Your task to perform on an android device: find which apps use the phone's location Image 0: 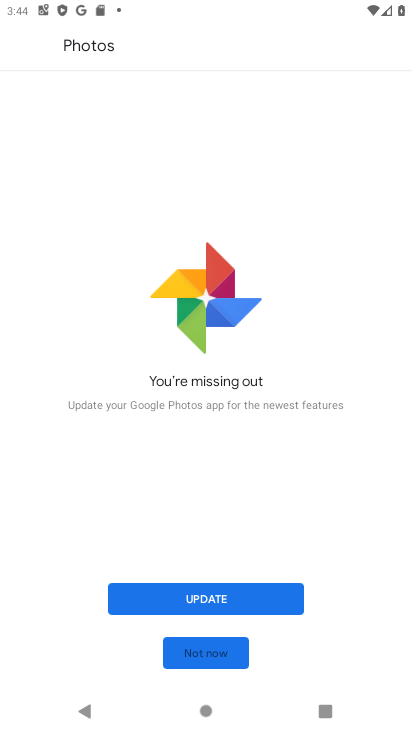
Step 0: press home button
Your task to perform on an android device: find which apps use the phone's location Image 1: 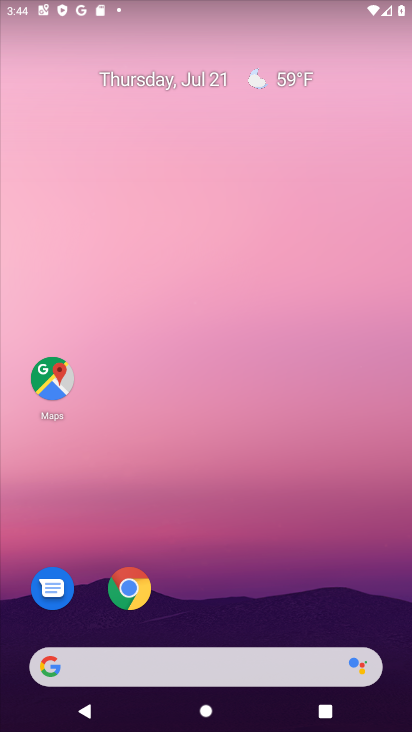
Step 1: drag from (223, 725) to (224, 121)
Your task to perform on an android device: find which apps use the phone's location Image 2: 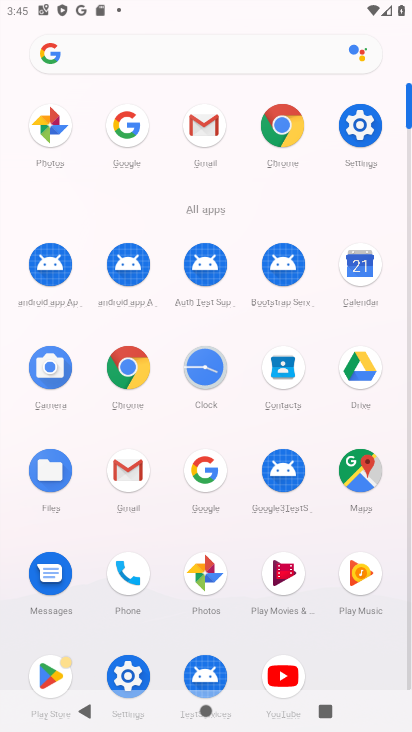
Step 2: click (361, 127)
Your task to perform on an android device: find which apps use the phone's location Image 3: 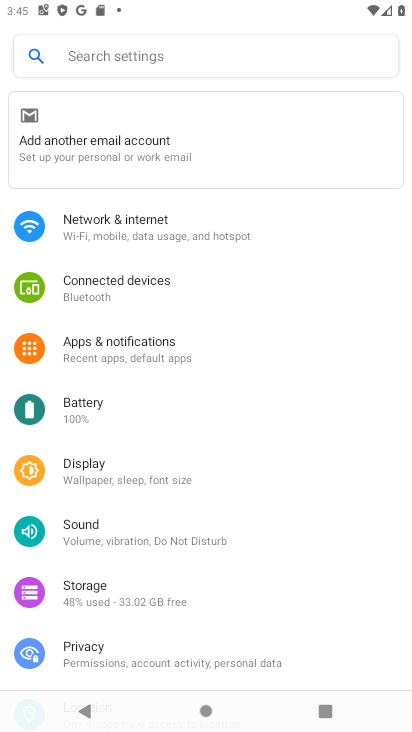
Step 3: drag from (102, 635) to (102, 307)
Your task to perform on an android device: find which apps use the phone's location Image 4: 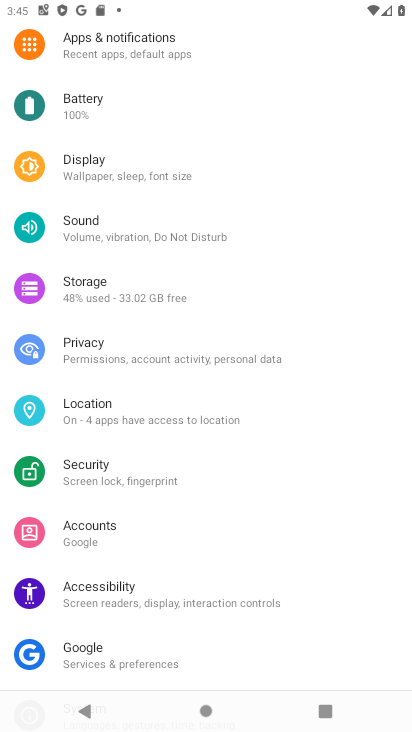
Step 4: click (88, 406)
Your task to perform on an android device: find which apps use the phone's location Image 5: 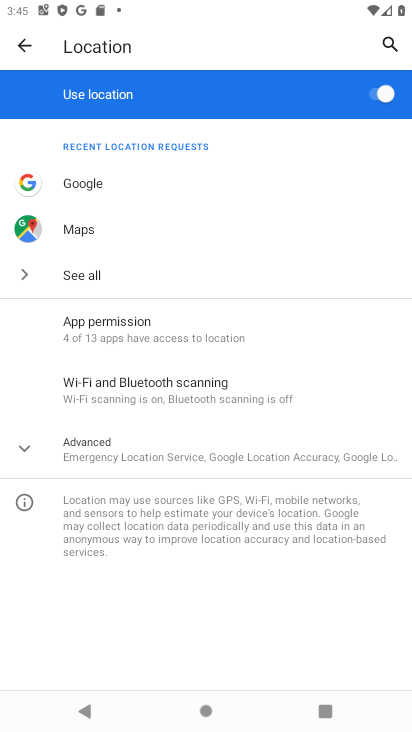
Step 5: click (111, 328)
Your task to perform on an android device: find which apps use the phone's location Image 6: 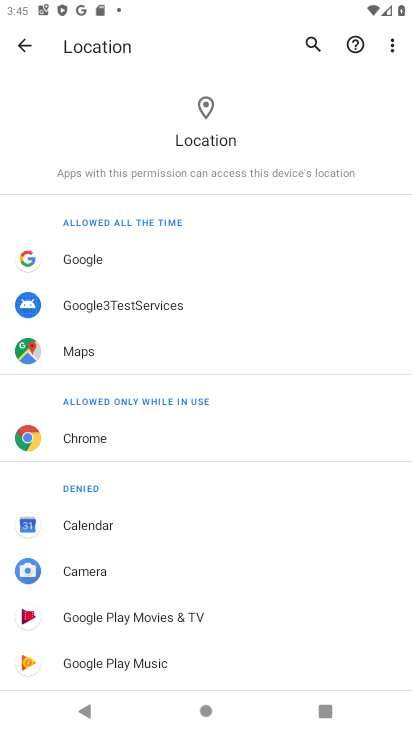
Step 6: task complete